Your task to perform on an android device: Go to privacy settings Image 0: 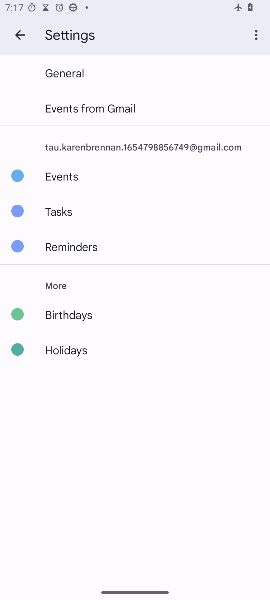
Step 0: press home button
Your task to perform on an android device: Go to privacy settings Image 1: 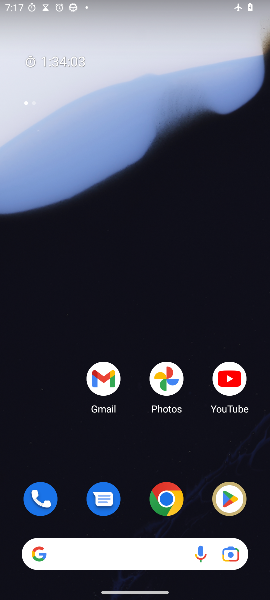
Step 1: drag from (113, 472) to (190, 58)
Your task to perform on an android device: Go to privacy settings Image 2: 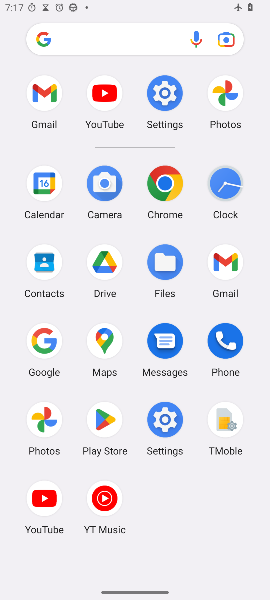
Step 2: click (157, 89)
Your task to perform on an android device: Go to privacy settings Image 3: 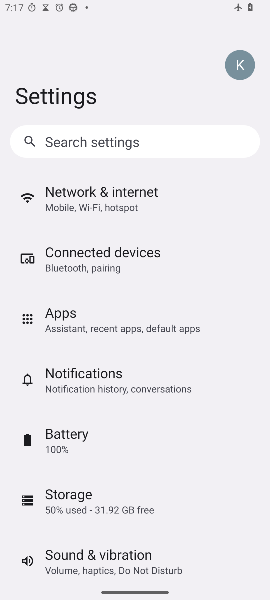
Step 3: drag from (98, 517) to (235, 231)
Your task to perform on an android device: Go to privacy settings Image 4: 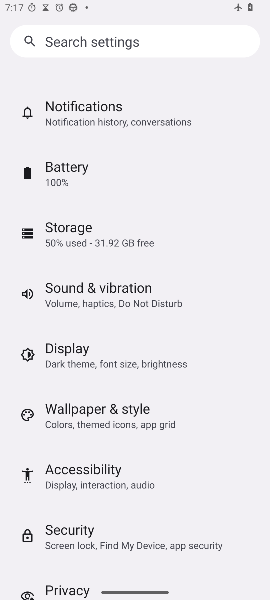
Step 4: drag from (81, 523) to (152, 261)
Your task to perform on an android device: Go to privacy settings Image 5: 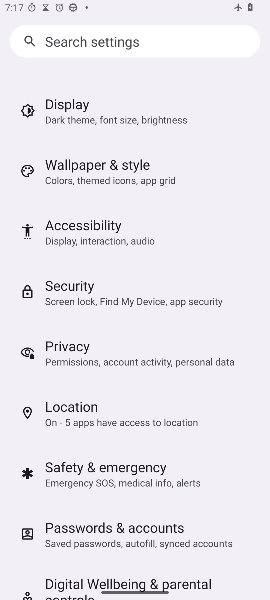
Step 5: click (83, 356)
Your task to perform on an android device: Go to privacy settings Image 6: 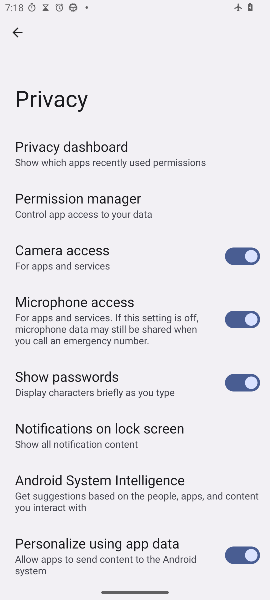
Step 6: task complete